Your task to perform on an android device: turn on showing notifications on the lock screen Image 0: 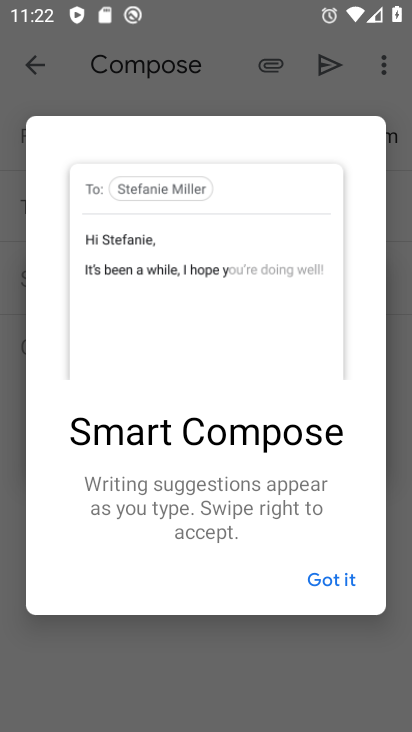
Step 0: press home button
Your task to perform on an android device: turn on showing notifications on the lock screen Image 1: 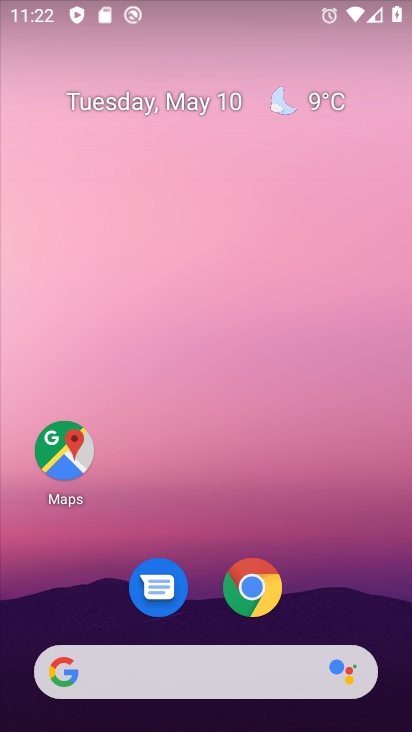
Step 1: drag from (356, 603) to (375, 16)
Your task to perform on an android device: turn on showing notifications on the lock screen Image 2: 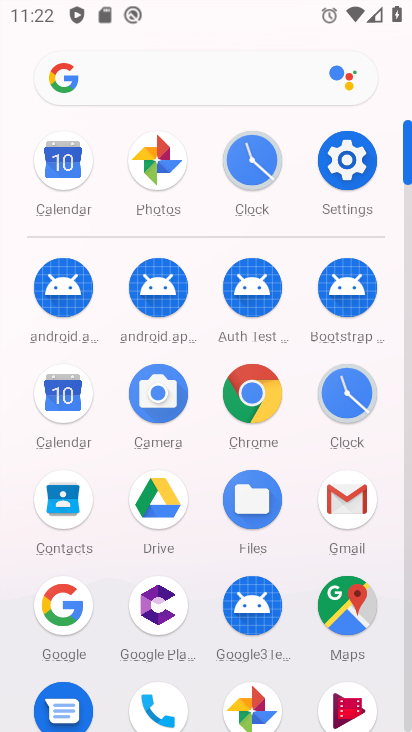
Step 2: click (348, 166)
Your task to perform on an android device: turn on showing notifications on the lock screen Image 3: 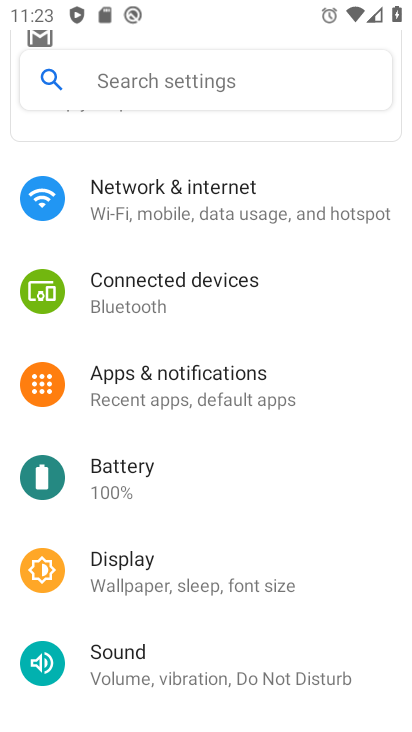
Step 3: click (187, 385)
Your task to perform on an android device: turn on showing notifications on the lock screen Image 4: 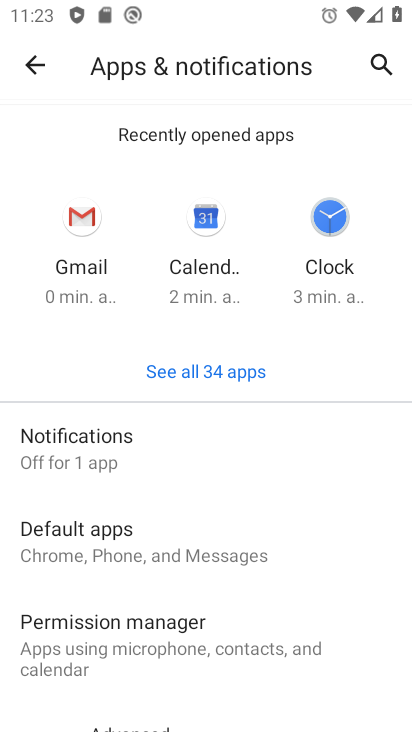
Step 4: click (70, 459)
Your task to perform on an android device: turn on showing notifications on the lock screen Image 5: 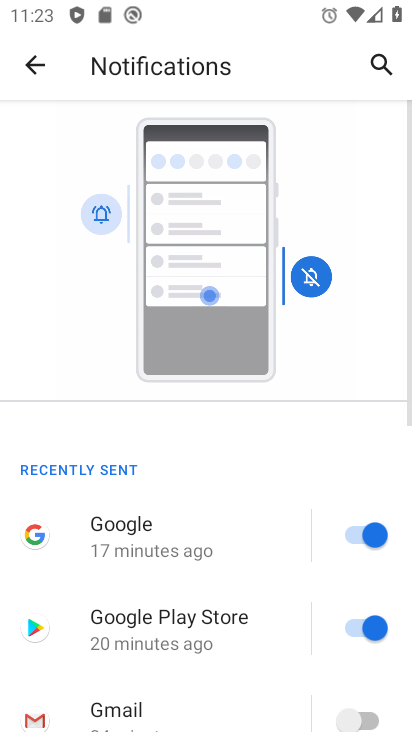
Step 5: drag from (200, 565) to (232, 114)
Your task to perform on an android device: turn on showing notifications on the lock screen Image 6: 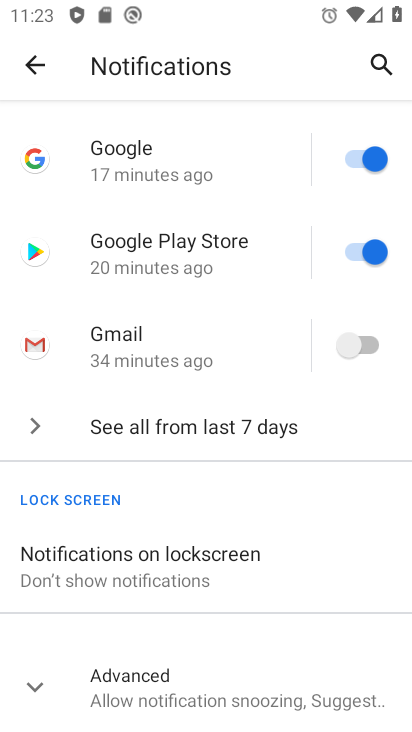
Step 6: click (110, 572)
Your task to perform on an android device: turn on showing notifications on the lock screen Image 7: 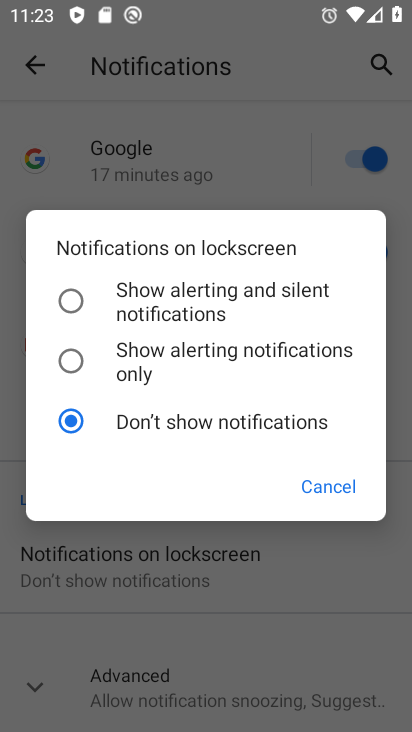
Step 7: click (65, 303)
Your task to perform on an android device: turn on showing notifications on the lock screen Image 8: 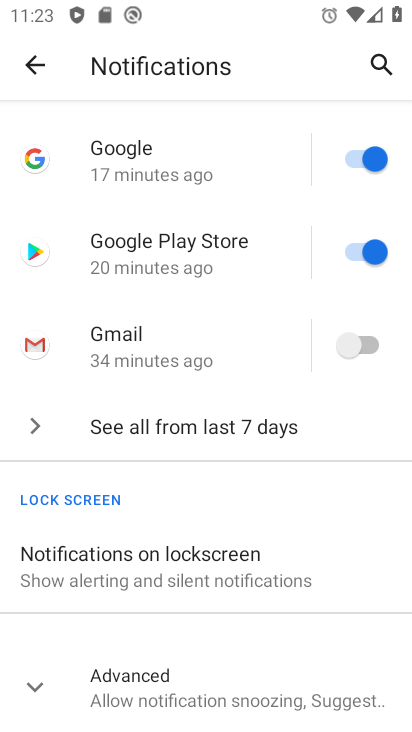
Step 8: task complete